Your task to perform on an android device: Go to eBay Image 0: 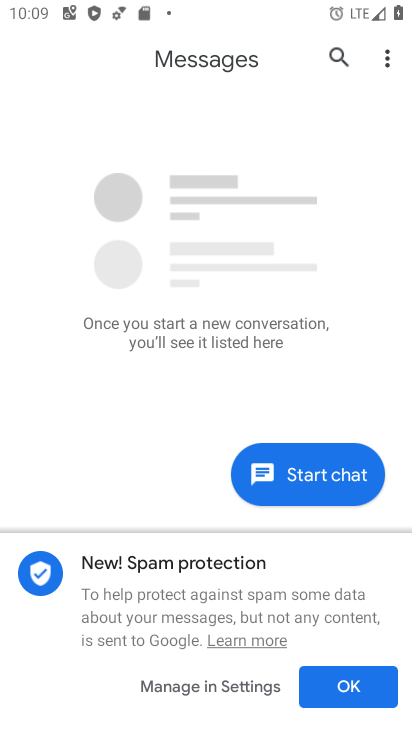
Step 0: press home button
Your task to perform on an android device: Go to eBay Image 1: 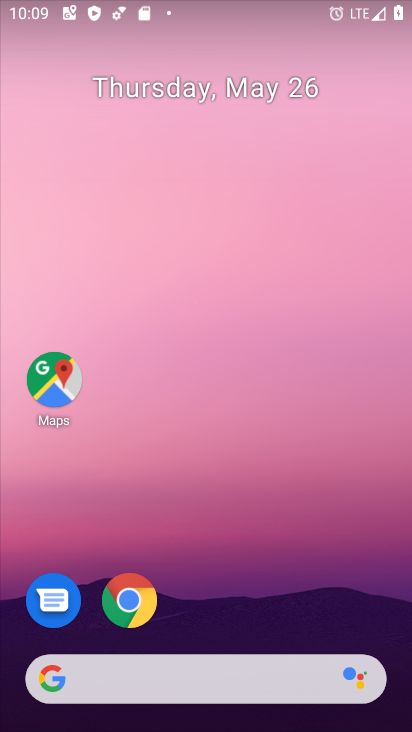
Step 1: drag from (297, 470) to (328, 144)
Your task to perform on an android device: Go to eBay Image 2: 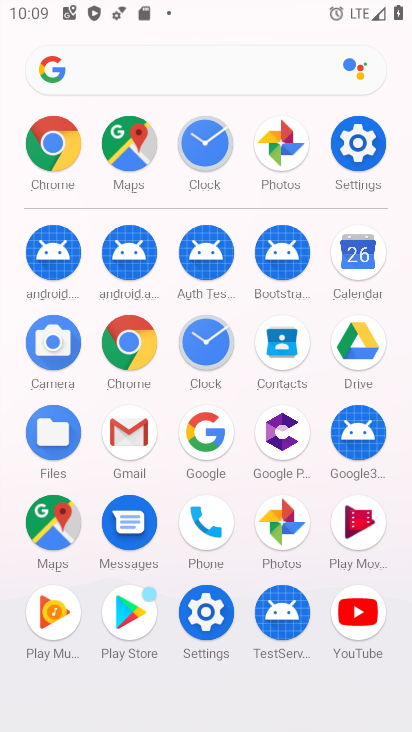
Step 2: click (137, 359)
Your task to perform on an android device: Go to eBay Image 3: 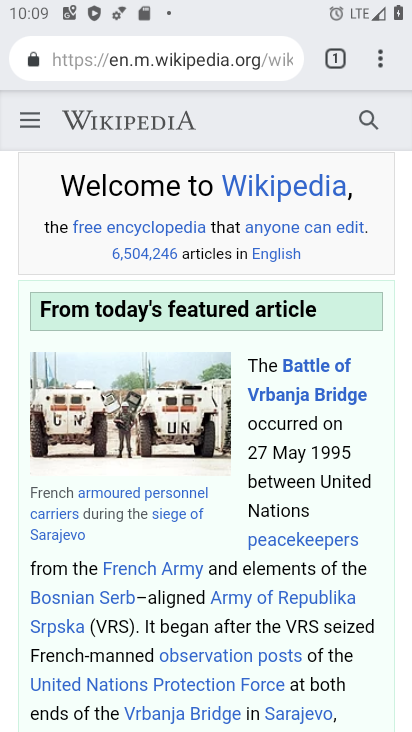
Step 3: click (194, 62)
Your task to perform on an android device: Go to eBay Image 4: 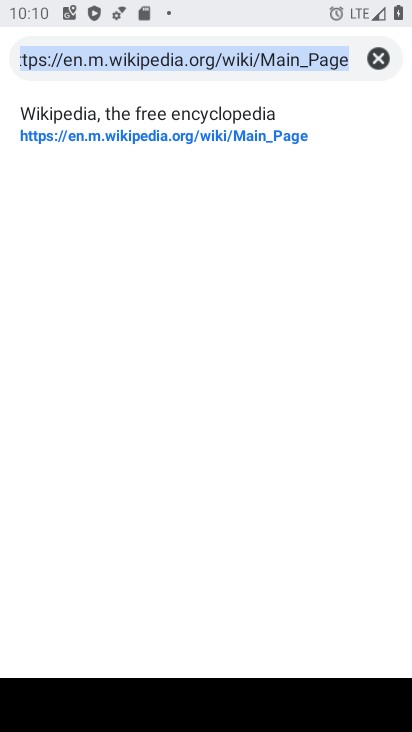
Step 4: type "ebay"
Your task to perform on an android device: Go to eBay Image 5: 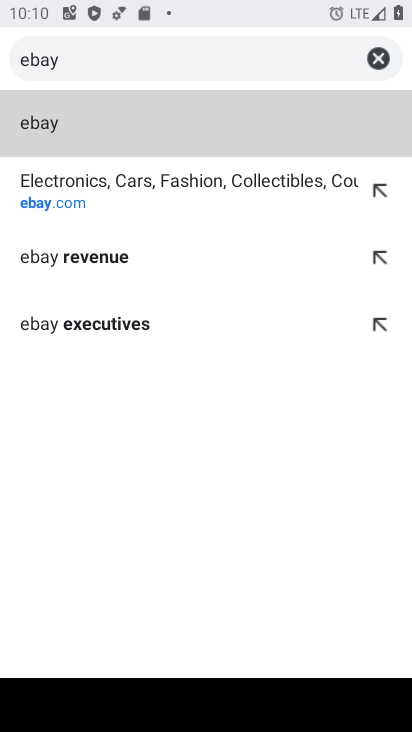
Step 5: click (65, 208)
Your task to perform on an android device: Go to eBay Image 6: 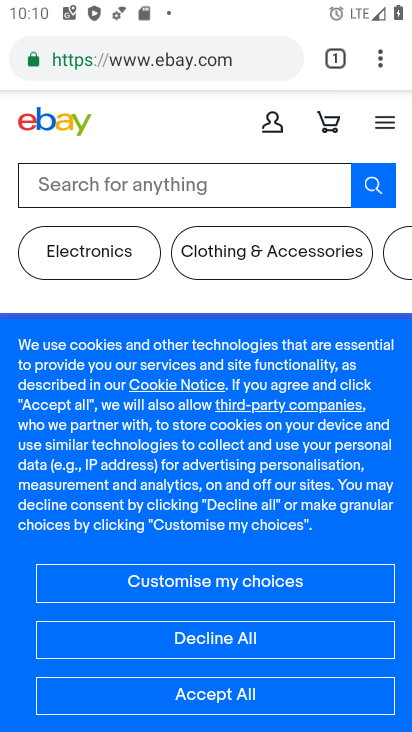
Step 6: task complete